Your task to perform on an android device: uninstall "Clock" Image 0: 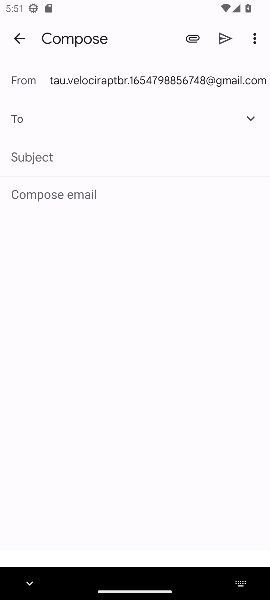
Step 0: press home button
Your task to perform on an android device: uninstall "Clock" Image 1: 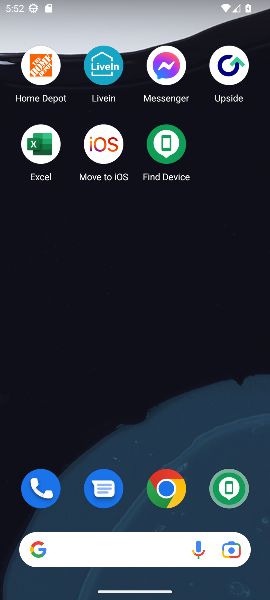
Step 1: drag from (143, 515) to (144, 66)
Your task to perform on an android device: uninstall "Clock" Image 2: 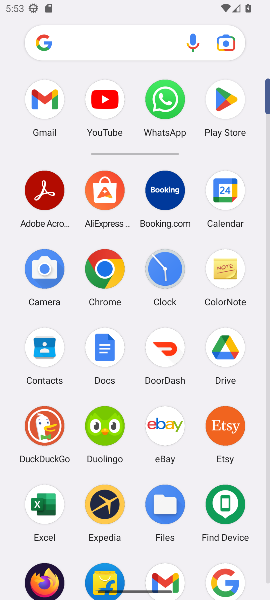
Step 2: click (156, 278)
Your task to perform on an android device: uninstall "Clock" Image 3: 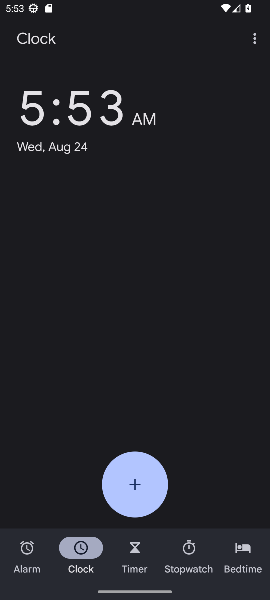
Step 3: task complete